Your task to perform on an android device: Open Google Image 0: 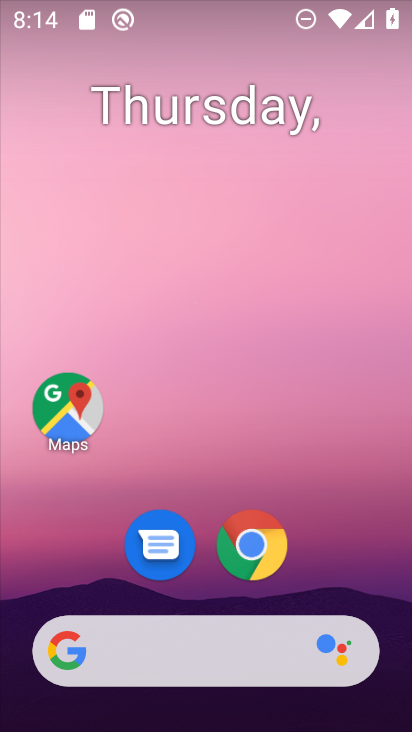
Step 0: drag from (312, 544) to (323, 11)
Your task to perform on an android device: Open Google Image 1: 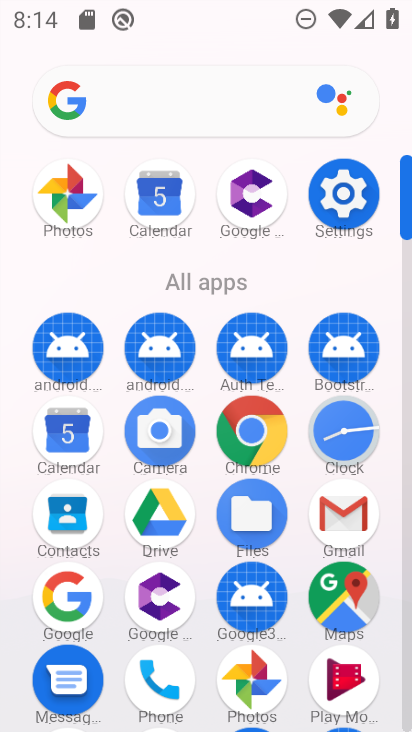
Step 1: click (62, 595)
Your task to perform on an android device: Open Google Image 2: 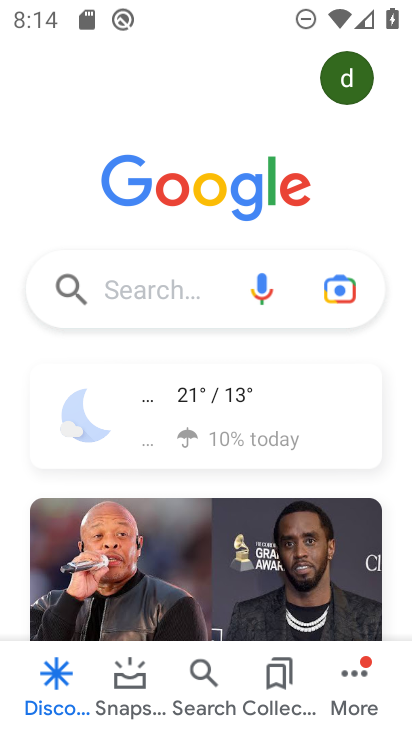
Step 2: task complete